Your task to perform on an android device: Clear the cart on walmart.com. Search for logitech g910 on walmart.com, select the first entry, add it to the cart, then select checkout. Image 0: 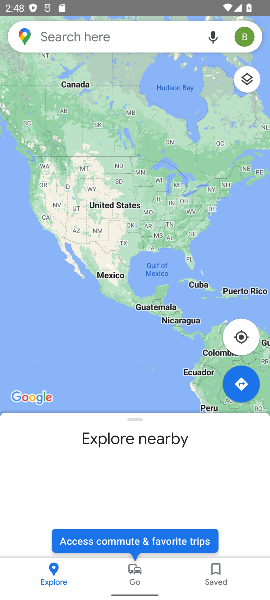
Step 0: press home button
Your task to perform on an android device: Clear the cart on walmart.com. Search for logitech g910 on walmart.com, select the first entry, add it to the cart, then select checkout. Image 1: 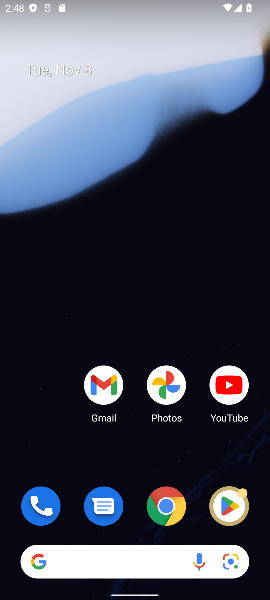
Step 1: click (172, 508)
Your task to perform on an android device: Clear the cart on walmart.com. Search for logitech g910 on walmart.com, select the first entry, add it to the cart, then select checkout. Image 2: 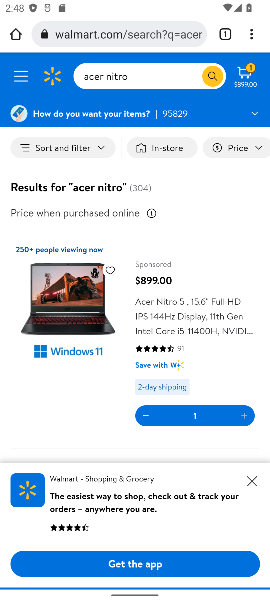
Step 2: click (163, 73)
Your task to perform on an android device: Clear the cart on walmart.com. Search for logitech g910 on walmart.com, select the first entry, add it to the cart, then select checkout. Image 3: 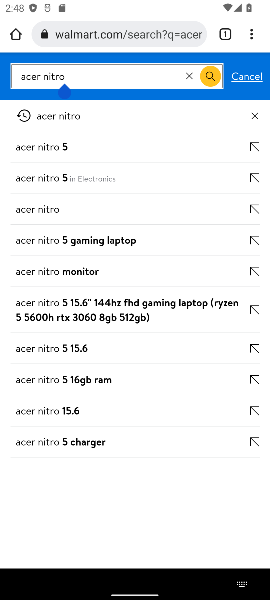
Step 3: click (190, 78)
Your task to perform on an android device: Clear the cart on walmart.com. Search for logitech g910 on walmart.com, select the first entry, add it to the cart, then select checkout. Image 4: 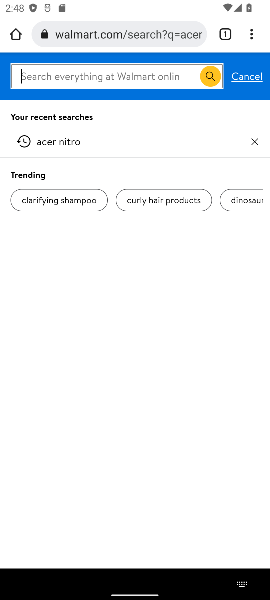
Step 4: type "walmart.com"
Your task to perform on an android device: Clear the cart on walmart.com. Search for logitech g910 on walmart.com, select the first entry, add it to the cart, then select checkout. Image 5: 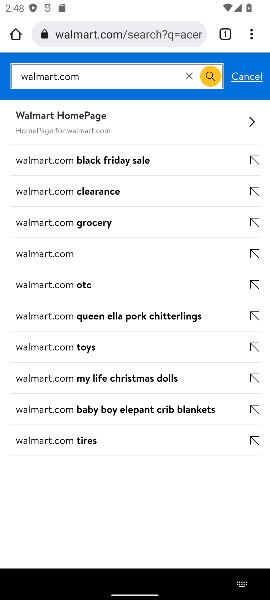
Step 5: click (187, 74)
Your task to perform on an android device: Clear the cart on walmart.com. Search for logitech g910 on walmart.com, select the first entry, add it to the cart, then select checkout. Image 6: 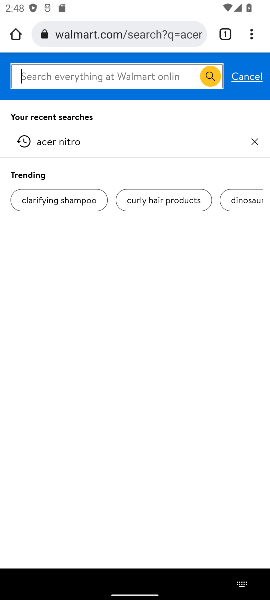
Step 6: type "logitech g910"
Your task to perform on an android device: Clear the cart on walmart.com. Search for logitech g910 on walmart.com, select the first entry, add it to the cart, then select checkout. Image 7: 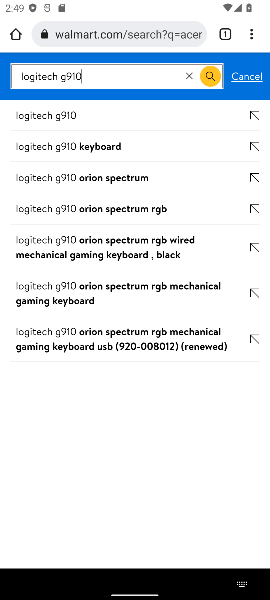
Step 7: click (66, 123)
Your task to perform on an android device: Clear the cart on walmart.com. Search for logitech g910 on walmart.com, select the first entry, add it to the cart, then select checkout. Image 8: 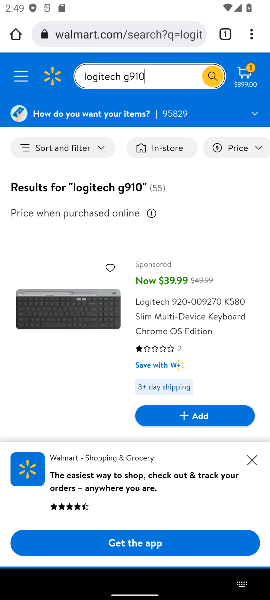
Step 8: click (198, 418)
Your task to perform on an android device: Clear the cart on walmart.com. Search for logitech g910 on walmart.com, select the first entry, add it to the cart, then select checkout. Image 9: 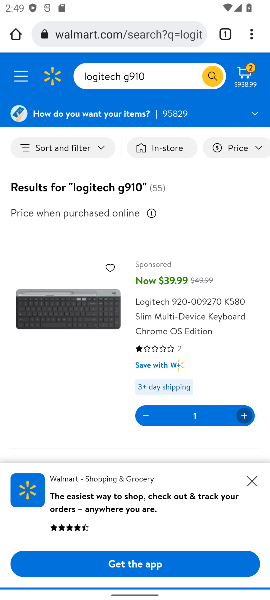
Step 9: task complete